Your task to perform on an android device: Go to Wikipedia Image 0: 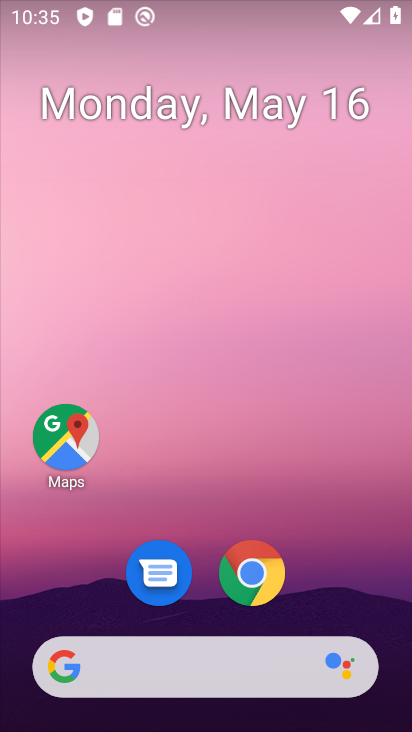
Step 0: drag from (259, 651) to (256, 38)
Your task to perform on an android device: Go to Wikipedia Image 1: 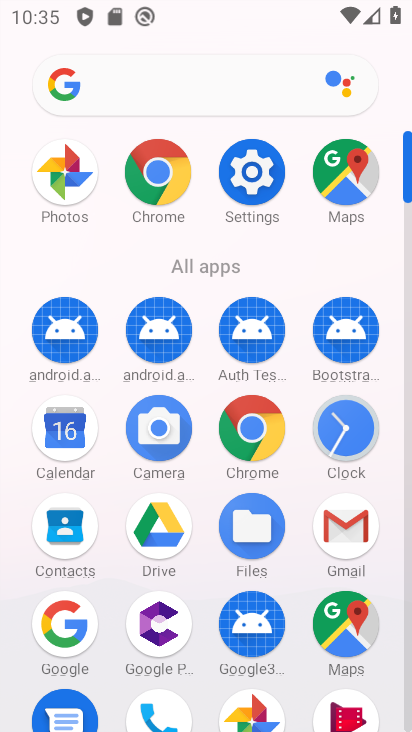
Step 1: click (259, 441)
Your task to perform on an android device: Go to Wikipedia Image 2: 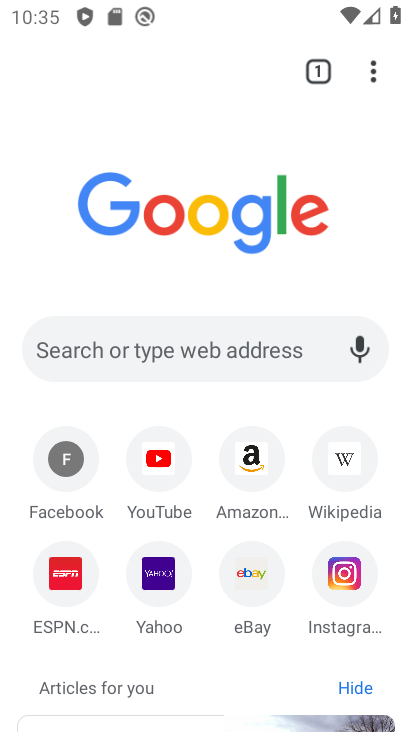
Step 2: click (351, 442)
Your task to perform on an android device: Go to Wikipedia Image 3: 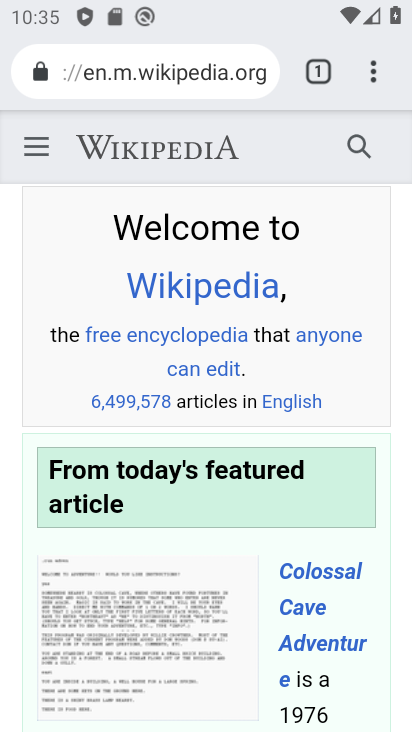
Step 3: task complete